Your task to perform on an android device: Go to wifi settings Image 0: 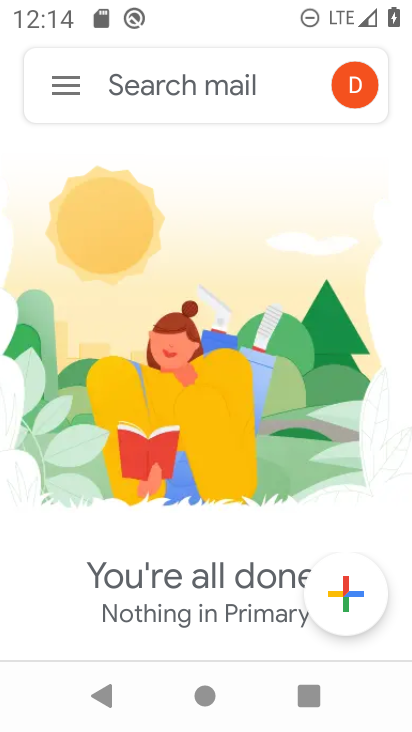
Step 0: press home button
Your task to perform on an android device: Go to wifi settings Image 1: 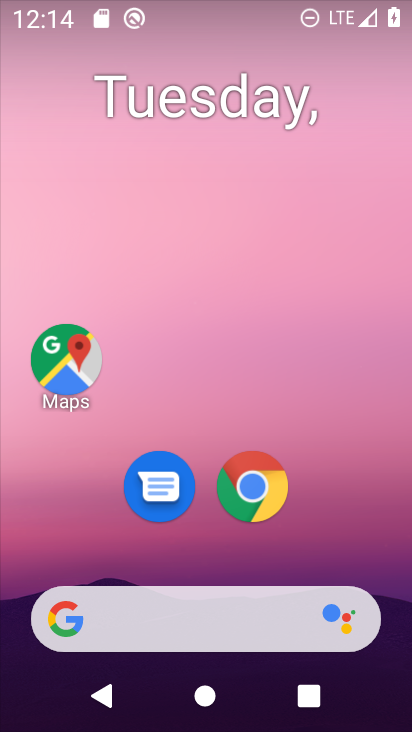
Step 1: drag from (9, 624) to (192, 169)
Your task to perform on an android device: Go to wifi settings Image 2: 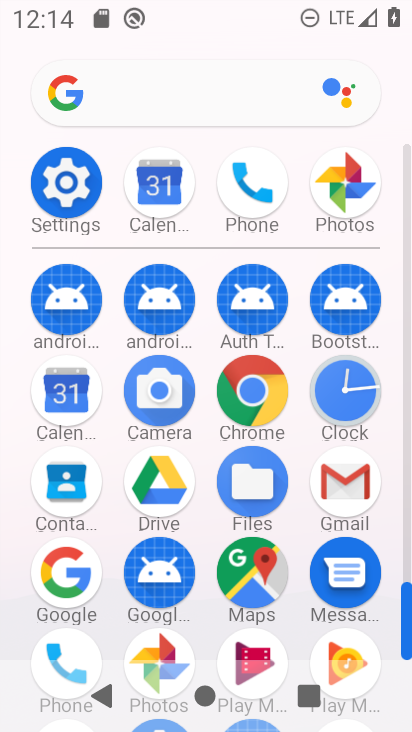
Step 2: click (70, 201)
Your task to perform on an android device: Go to wifi settings Image 3: 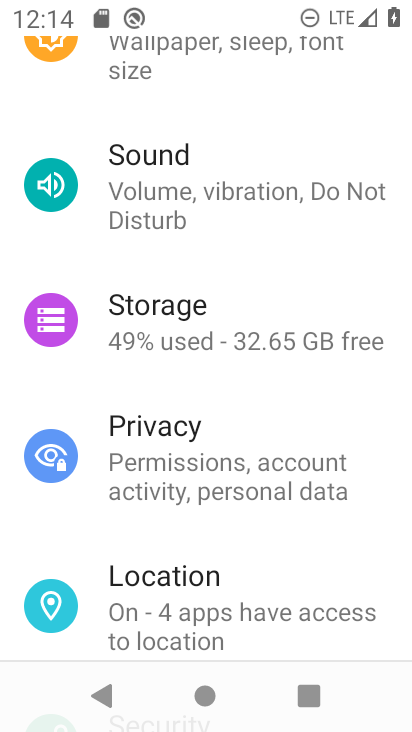
Step 3: drag from (146, 109) to (142, 545)
Your task to perform on an android device: Go to wifi settings Image 4: 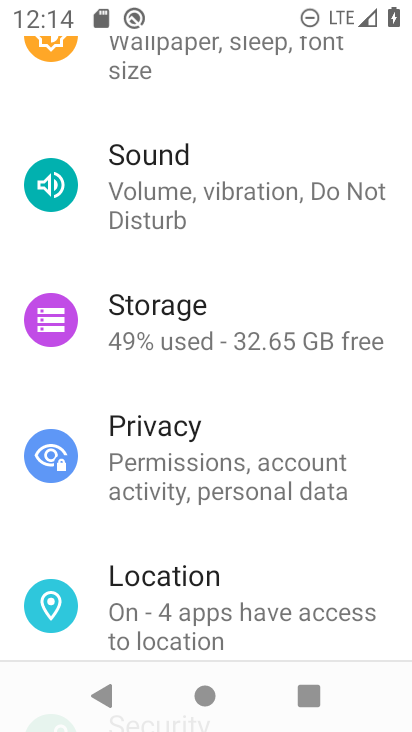
Step 4: drag from (100, 162) to (97, 636)
Your task to perform on an android device: Go to wifi settings Image 5: 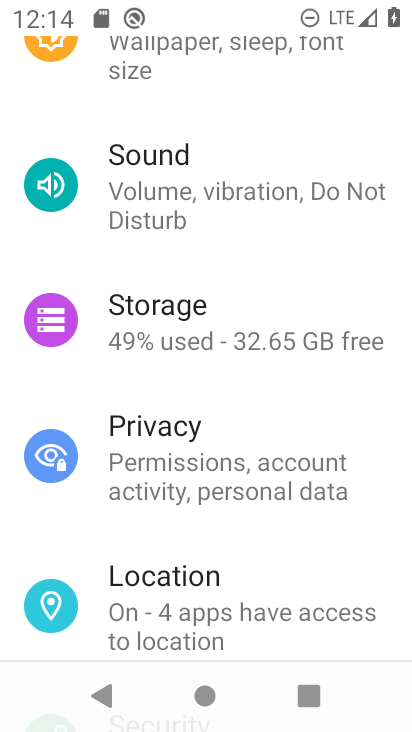
Step 5: drag from (293, 134) to (251, 619)
Your task to perform on an android device: Go to wifi settings Image 6: 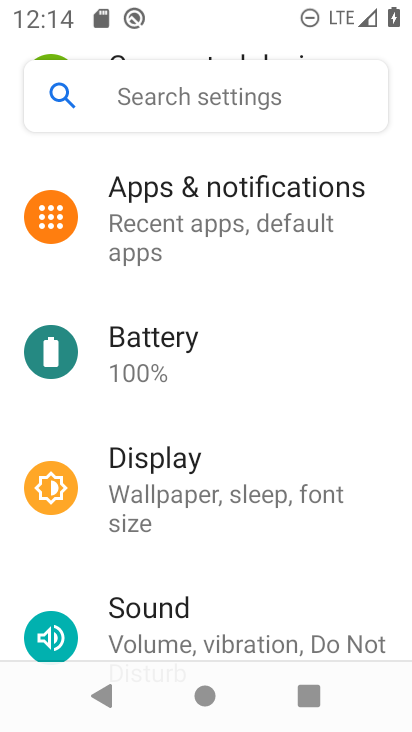
Step 6: drag from (210, 213) to (232, 672)
Your task to perform on an android device: Go to wifi settings Image 7: 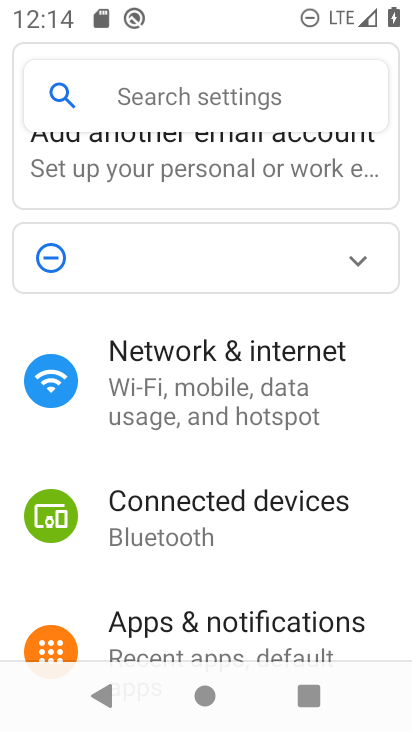
Step 7: click (232, 381)
Your task to perform on an android device: Go to wifi settings Image 8: 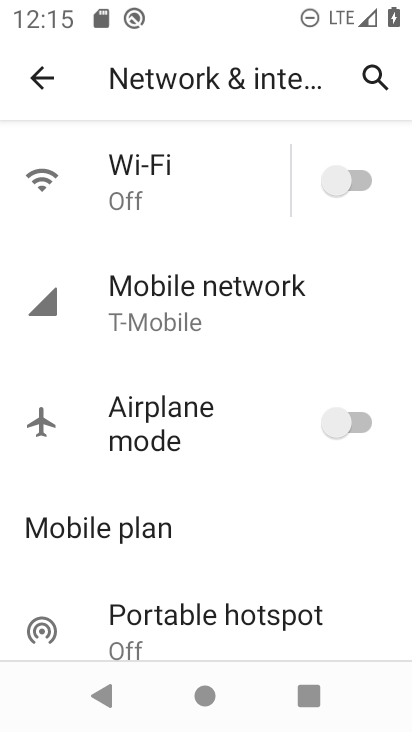
Step 8: click (337, 186)
Your task to perform on an android device: Go to wifi settings Image 9: 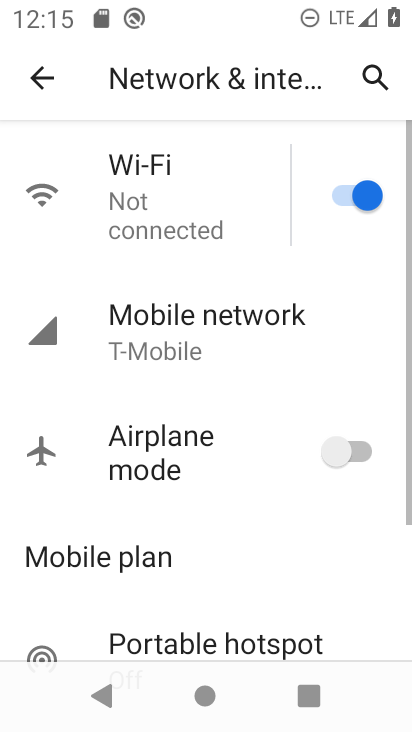
Step 9: click (124, 200)
Your task to perform on an android device: Go to wifi settings Image 10: 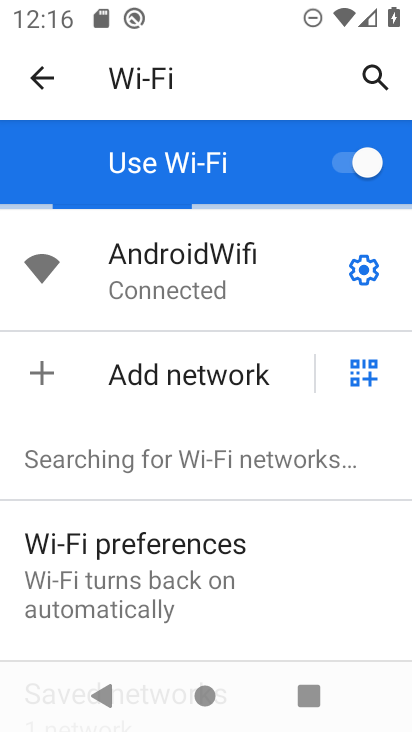
Step 10: click (369, 271)
Your task to perform on an android device: Go to wifi settings Image 11: 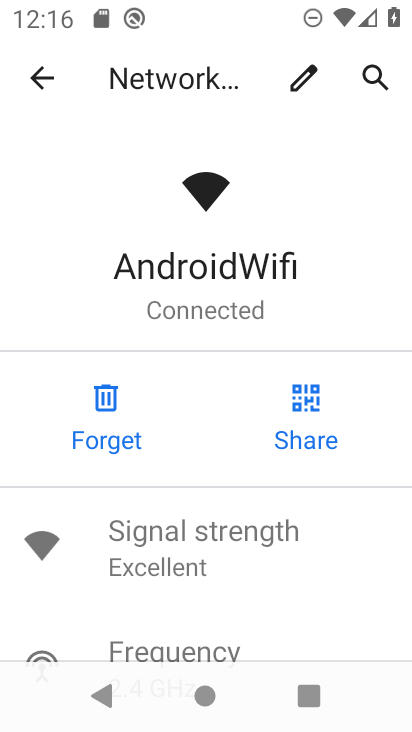
Step 11: task complete